Your task to perform on an android device: allow cookies in the chrome app Image 0: 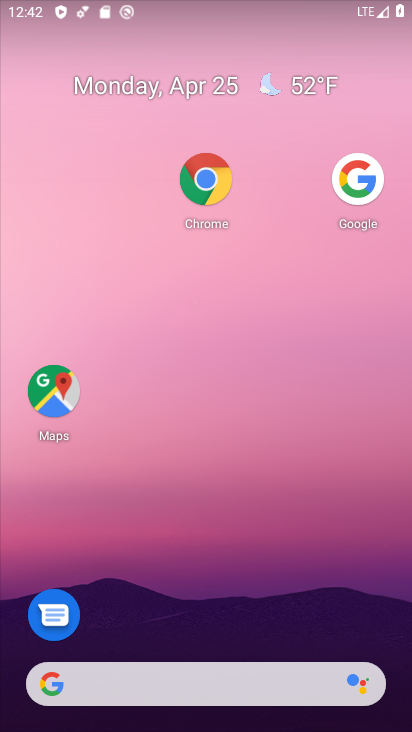
Step 0: click (209, 180)
Your task to perform on an android device: allow cookies in the chrome app Image 1: 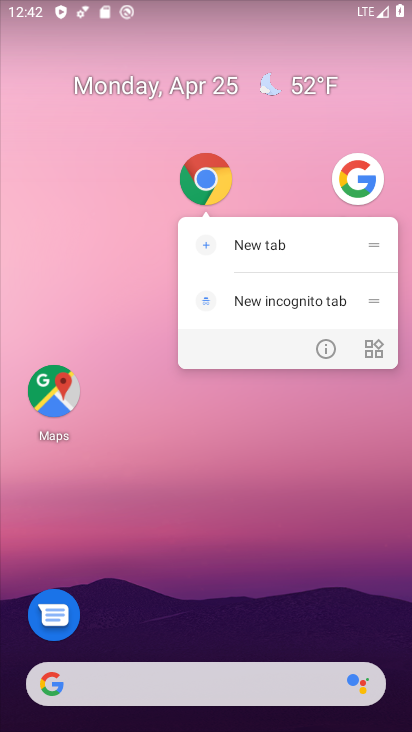
Step 1: click (198, 192)
Your task to perform on an android device: allow cookies in the chrome app Image 2: 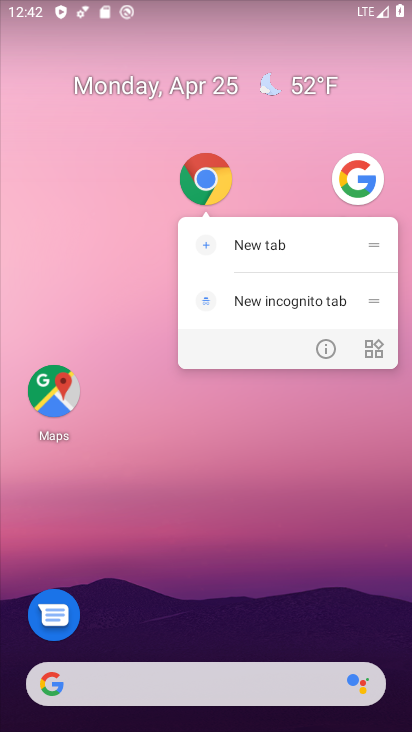
Step 2: click (204, 184)
Your task to perform on an android device: allow cookies in the chrome app Image 3: 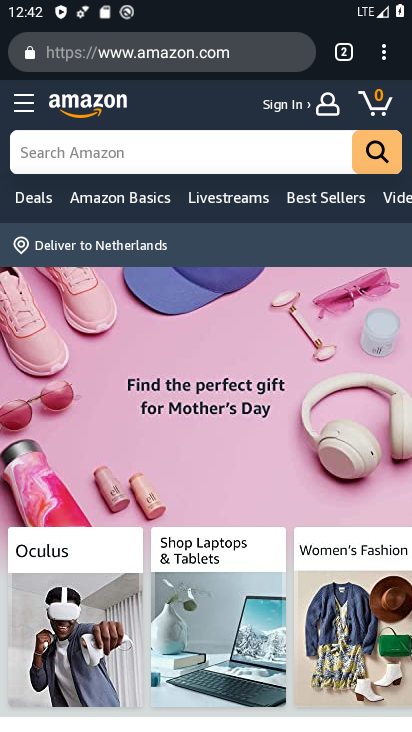
Step 3: drag from (384, 52) to (232, 658)
Your task to perform on an android device: allow cookies in the chrome app Image 4: 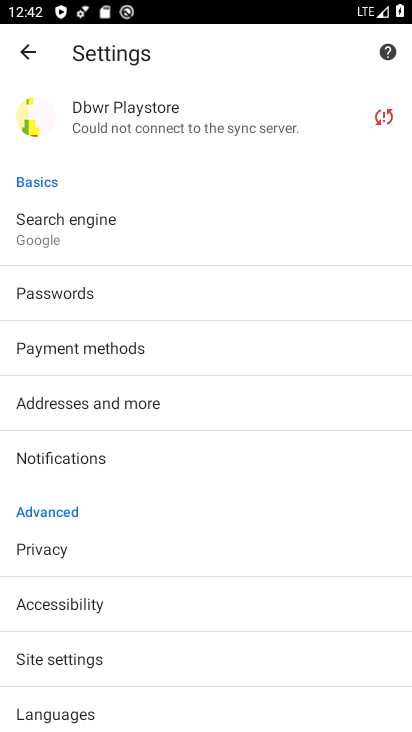
Step 4: drag from (143, 665) to (207, 275)
Your task to perform on an android device: allow cookies in the chrome app Image 5: 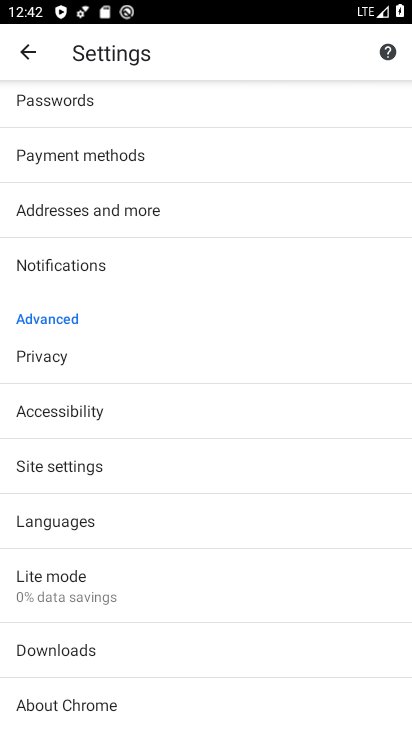
Step 5: click (104, 474)
Your task to perform on an android device: allow cookies in the chrome app Image 6: 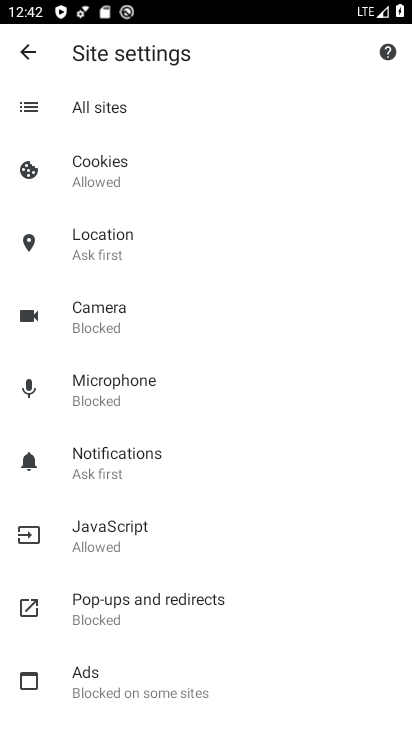
Step 6: click (114, 175)
Your task to perform on an android device: allow cookies in the chrome app Image 7: 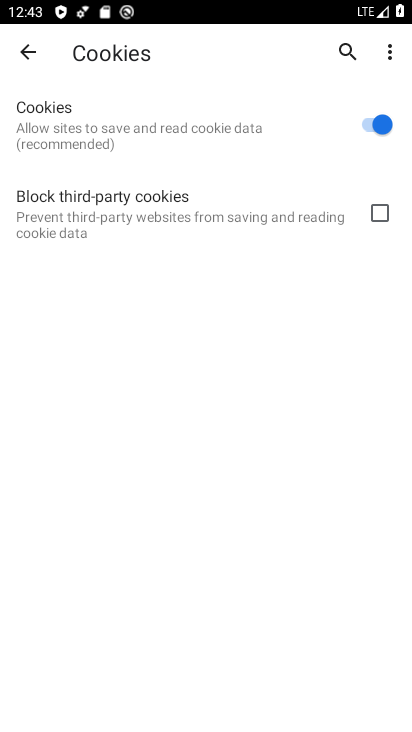
Step 7: task complete